Your task to perform on an android device: turn off airplane mode Image 0: 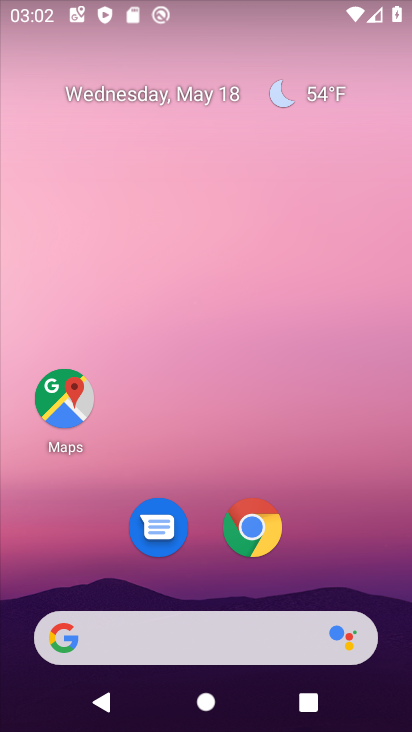
Step 0: drag from (230, 584) to (295, 730)
Your task to perform on an android device: turn off airplane mode Image 1: 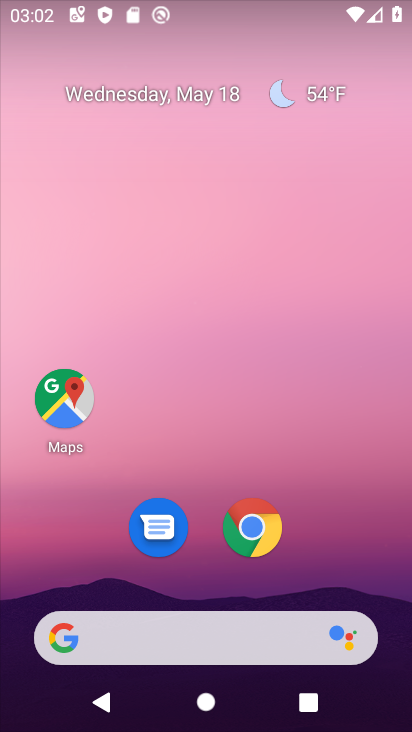
Step 1: drag from (231, 592) to (224, 3)
Your task to perform on an android device: turn off airplane mode Image 2: 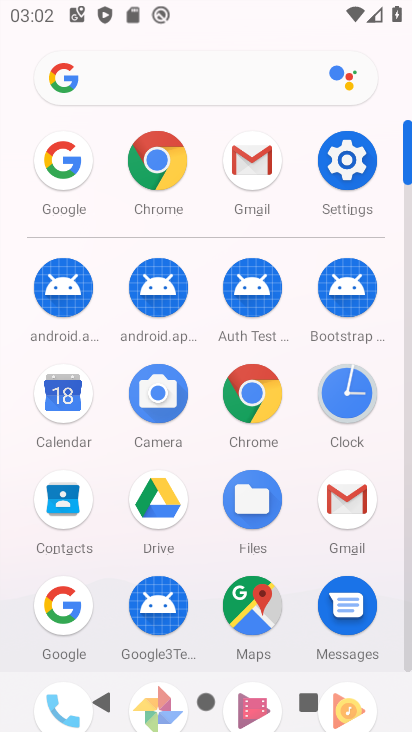
Step 2: click (359, 159)
Your task to perform on an android device: turn off airplane mode Image 3: 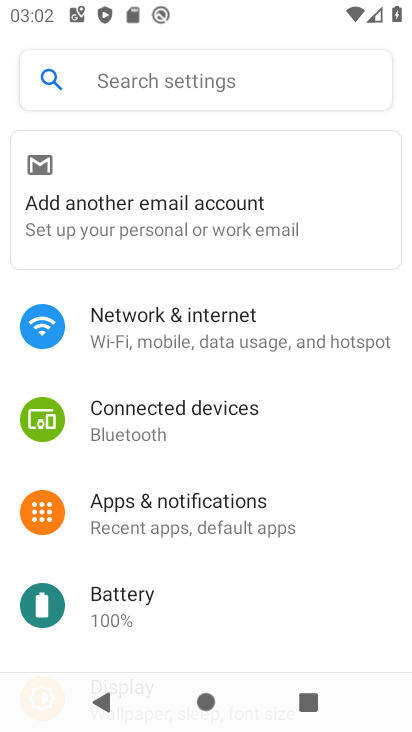
Step 3: click (205, 363)
Your task to perform on an android device: turn off airplane mode Image 4: 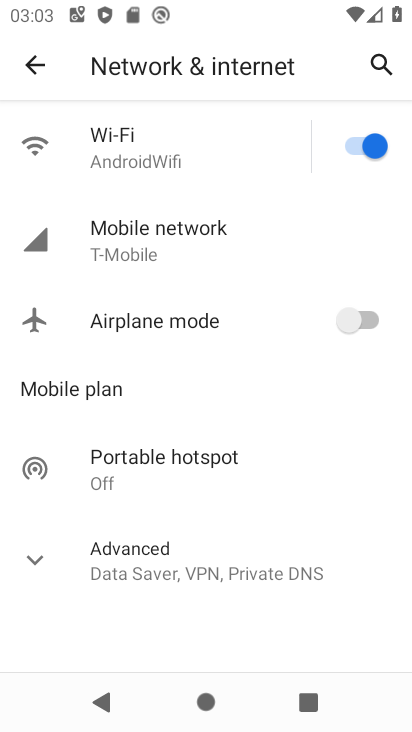
Step 4: task complete